Your task to perform on an android device: open app "PUBG MOBILE" (install if not already installed) and enter user name: "phenomenologically@gmail.com" and password: "artillery" Image 0: 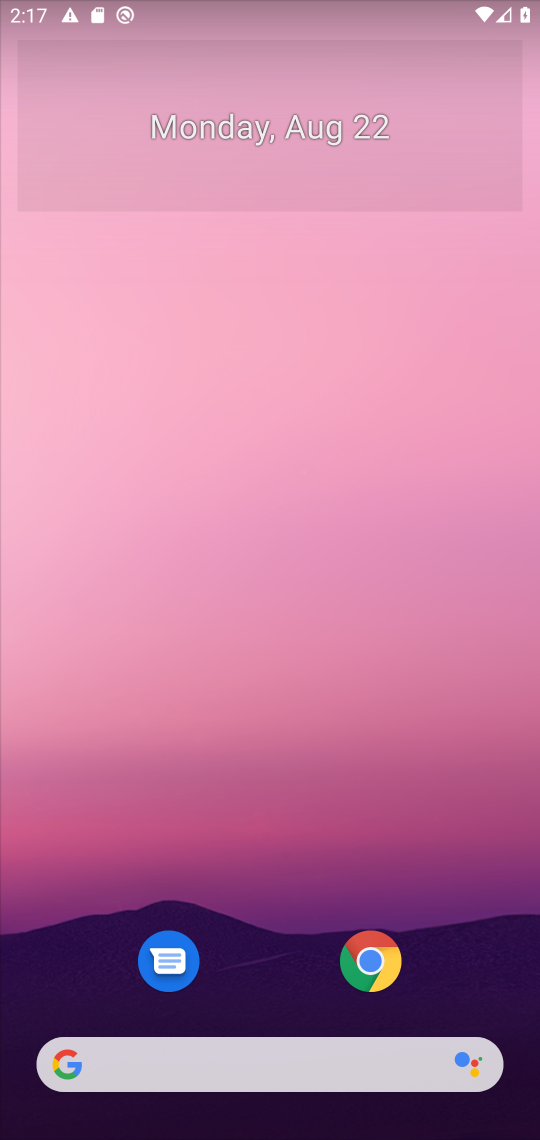
Step 0: drag from (463, 992) to (455, 154)
Your task to perform on an android device: open app "PUBG MOBILE" (install if not already installed) and enter user name: "phenomenologically@gmail.com" and password: "artillery" Image 1: 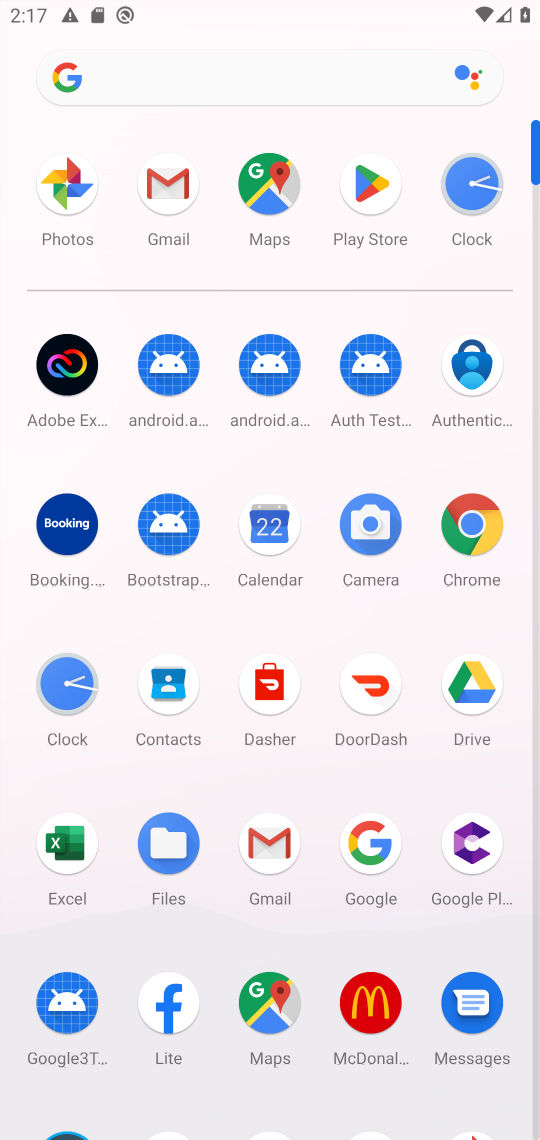
Step 1: click (375, 172)
Your task to perform on an android device: open app "PUBG MOBILE" (install if not already installed) and enter user name: "phenomenologically@gmail.com" and password: "artillery" Image 2: 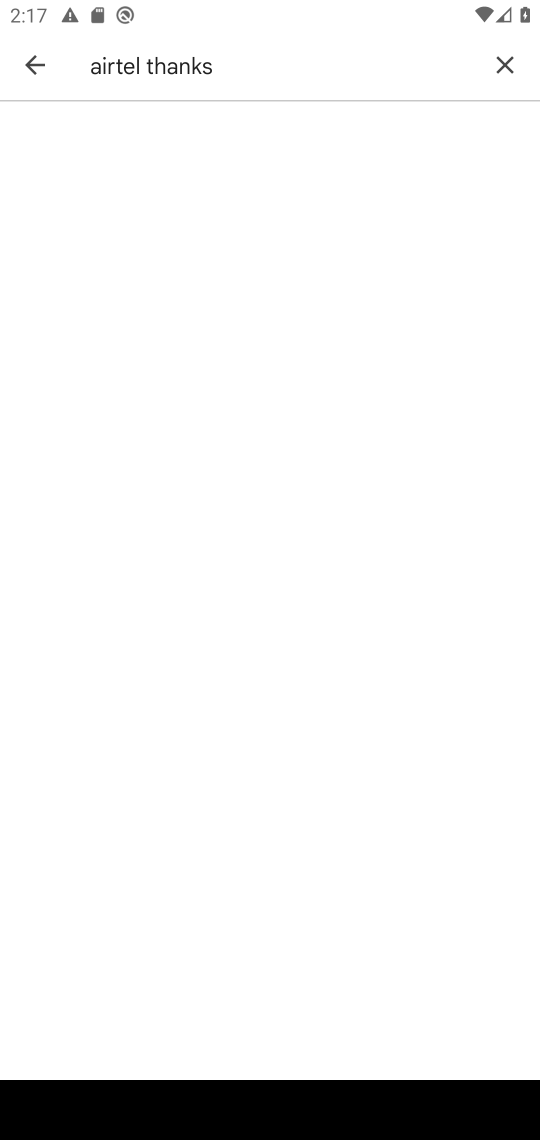
Step 2: press back button
Your task to perform on an android device: open app "PUBG MOBILE" (install if not already installed) and enter user name: "phenomenologically@gmail.com" and password: "artillery" Image 3: 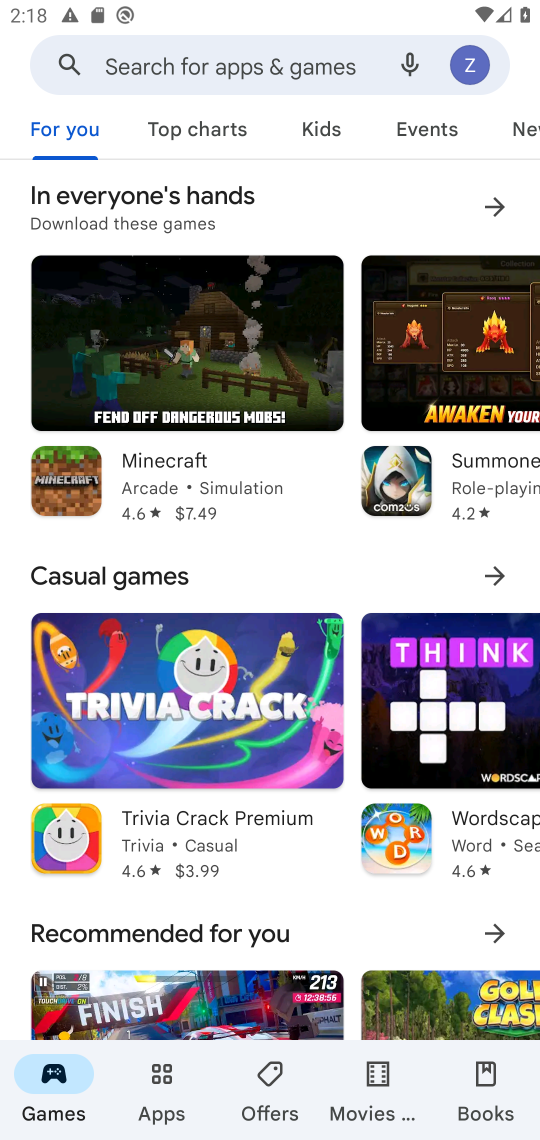
Step 3: click (293, 47)
Your task to perform on an android device: open app "PUBG MOBILE" (install if not already installed) and enter user name: "phenomenologically@gmail.com" and password: "artillery" Image 4: 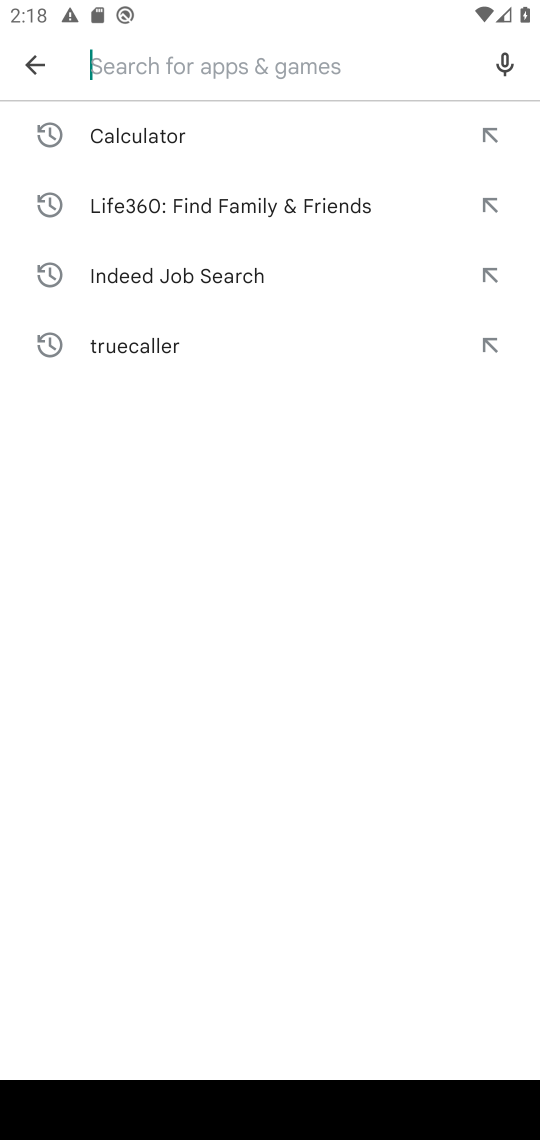
Step 4: press enter
Your task to perform on an android device: open app "PUBG MOBILE" (install if not already installed) and enter user name: "phenomenologically@gmail.com" and password: "artillery" Image 5: 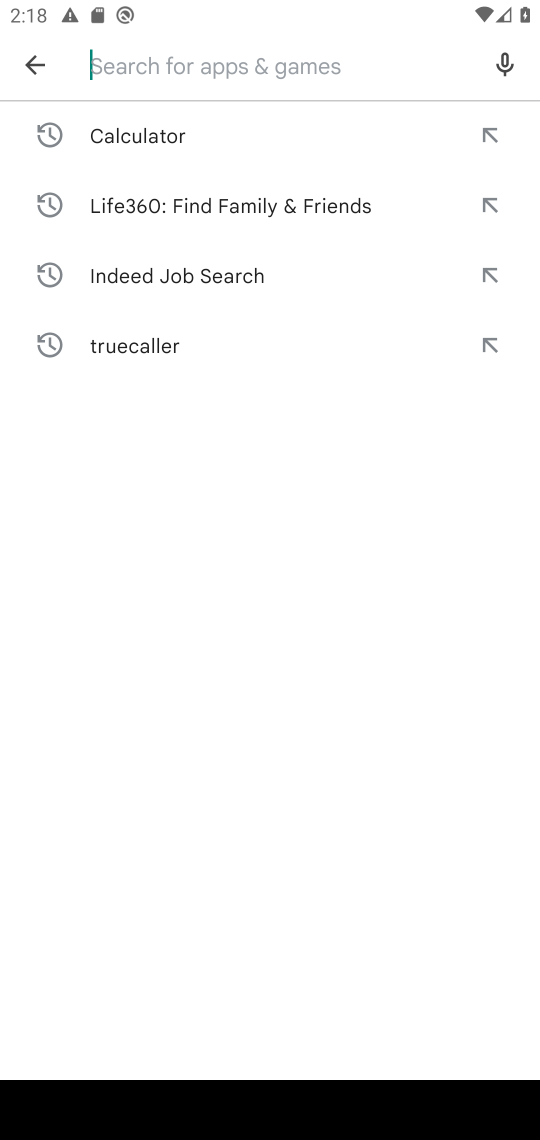
Step 5: type "pubg mobile"
Your task to perform on an android device: open app "PUBG MOBILE" (install if not already installed) and enter user name: "phenomenologically@gmail.com" and password: "artillery" Image 6: 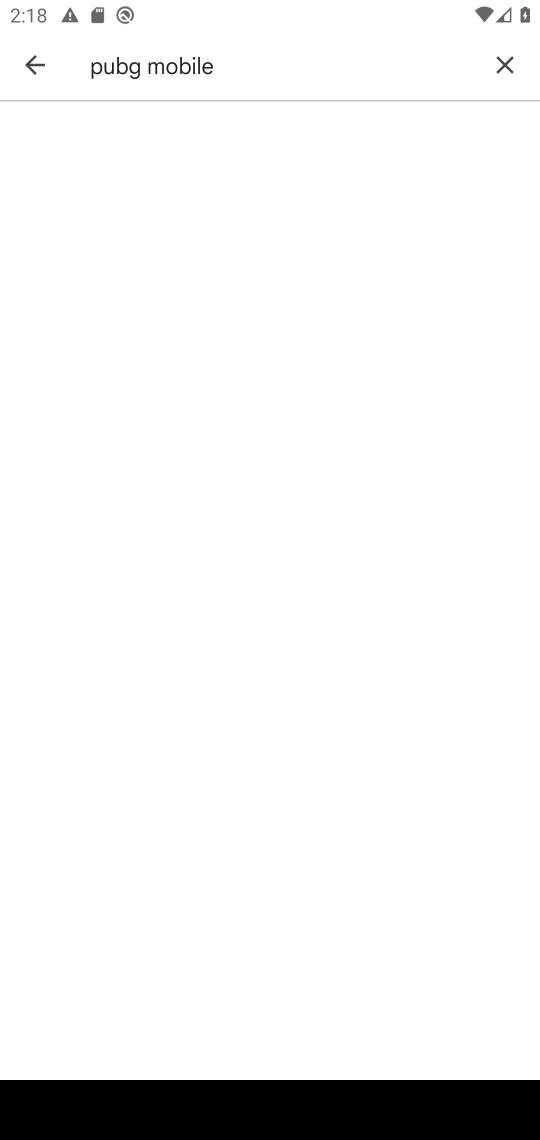
Step 6: task complete